Your task to perform on an android device: turn off sleep mode Image 0: 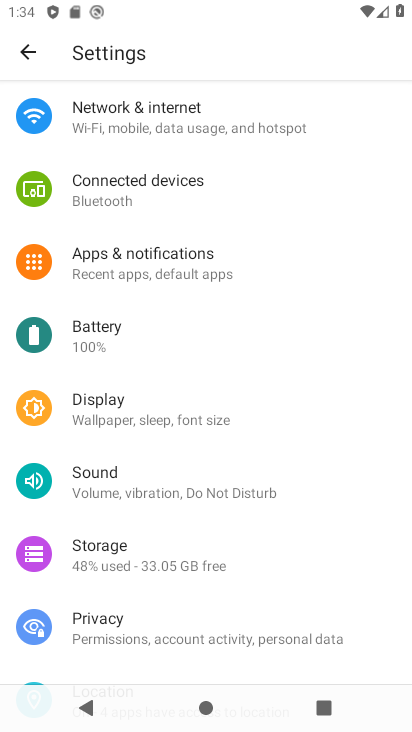
Step 0: click (202, 405)
Your task to perform on an android device: turn off sleep mode Image 1: 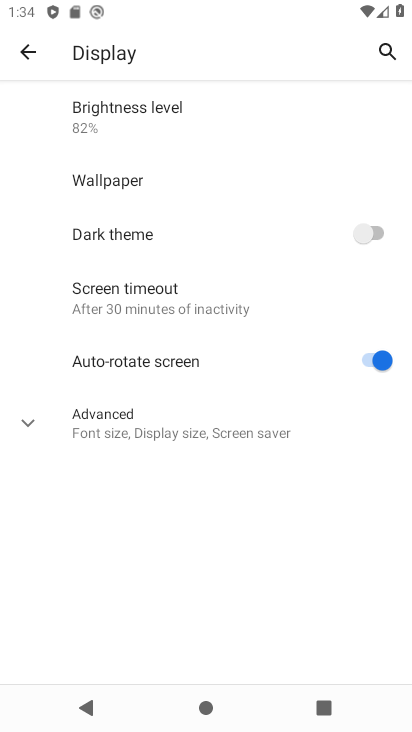
Step 1: click (30, 419)
Your task to perform on an android device: turn off sleep mode Image 2: 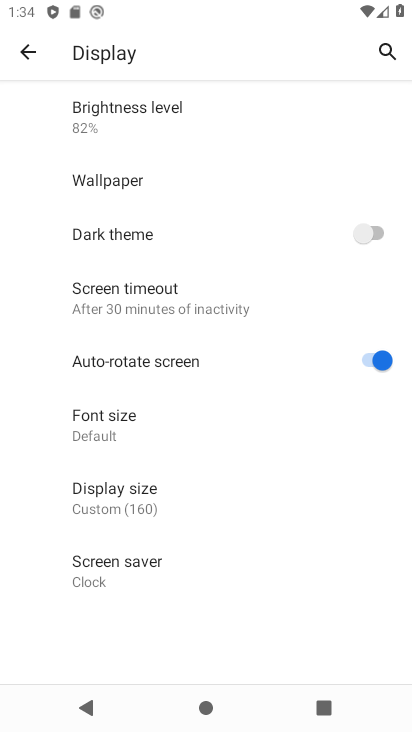
Step 2: task complete